Your task to perform on an android device: Show me recent news Image 0: 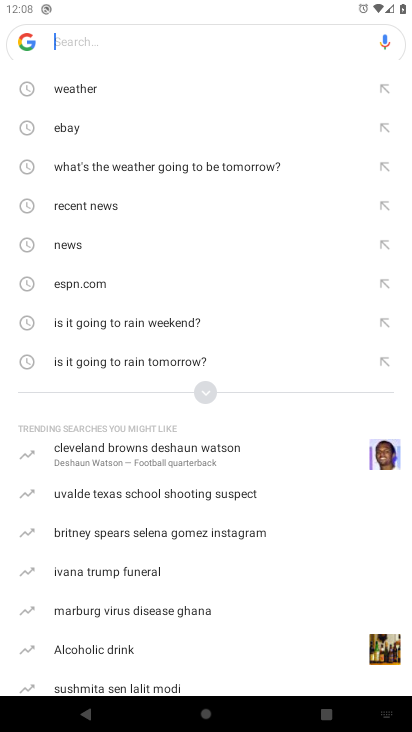
Step 0: type "Show me recent news"
Your task to perform on an android device: Show me recent news Image 1: 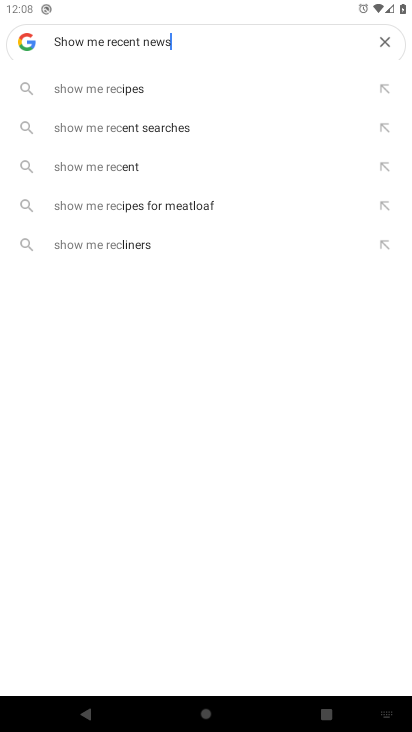
Step 1: type ""
Your task to perform on an android device: Show me recent news Image 2: 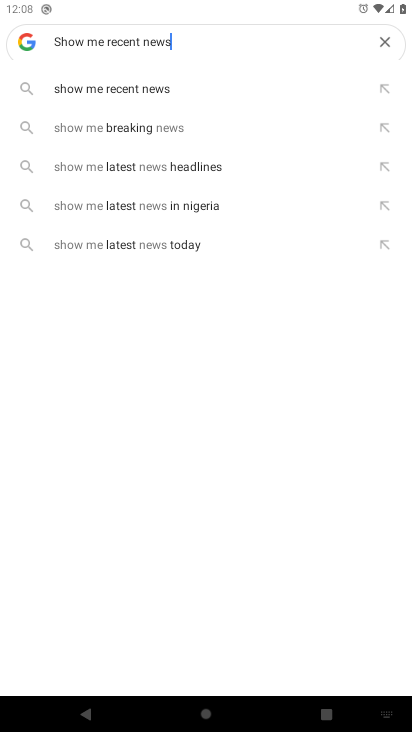
Step 2: click (161, 86)
Your task to perform on an android device: Show me recent news Image 3: 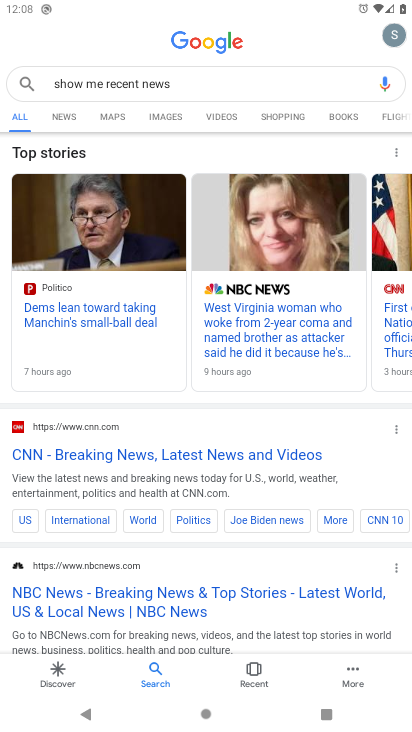
Step 3: task complete